Your task to perform on an android device: open a bookmark in the chrome app Image 0: 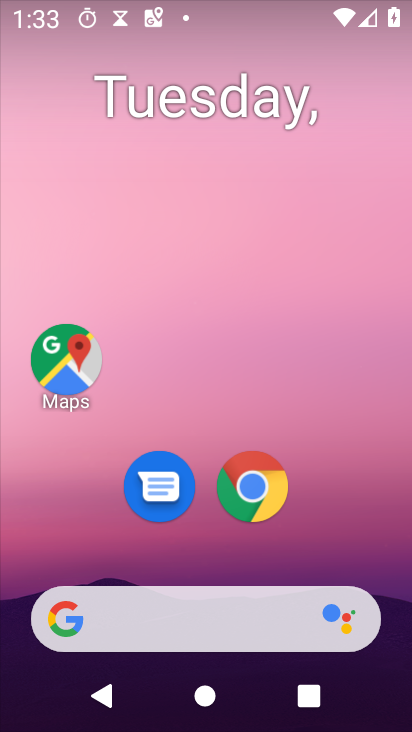
Step 0: click (239, 483)
Your task to perform on an android device: open a bookmark in the chrome app Image 1: 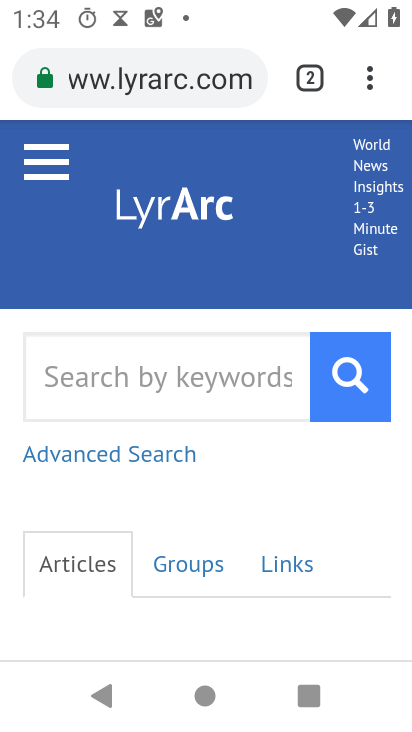
Step 1: click (376, 76)
Your task to perform on an android device: open a bookmark in the chrome app Image 2: 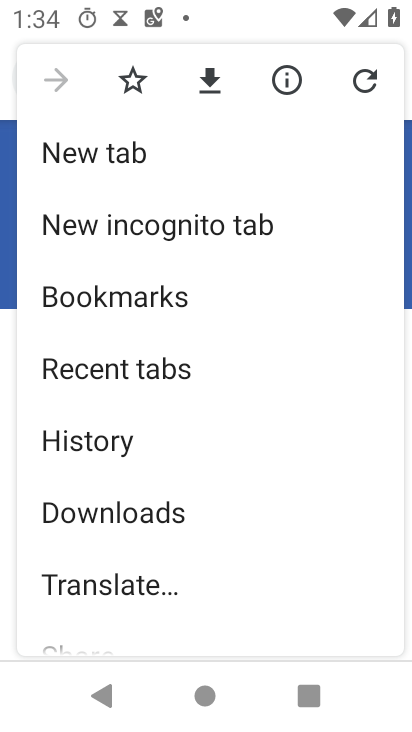
Step 2: click (227, 306)
Your task to perform on an android device: open a bookmark in the chrome app Image 3: 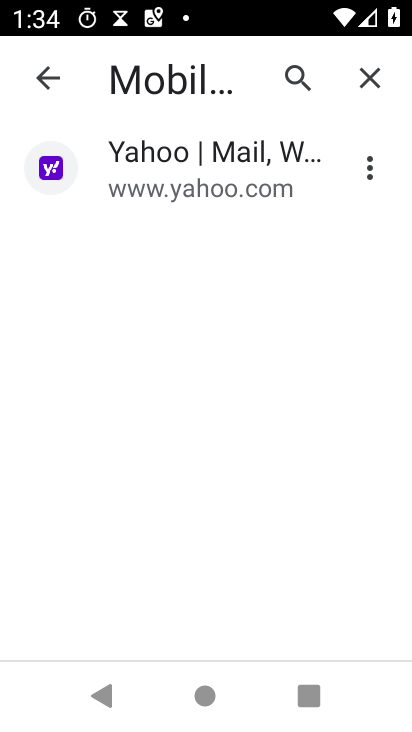
Step 3: click (225, 142)
Your task to perform on an android device: open a bookmark in the chrome app Image 4: 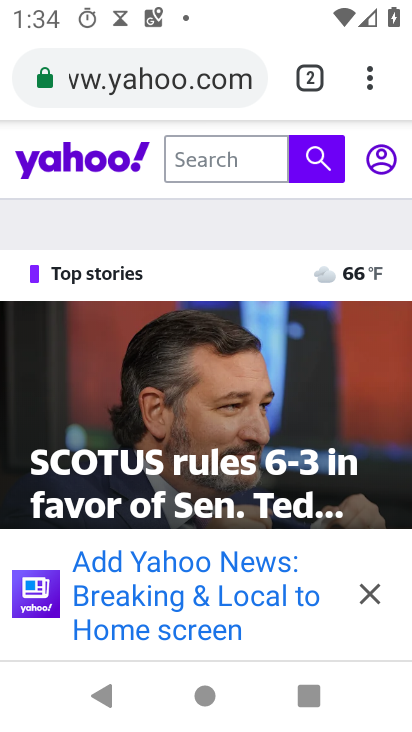
Step 4: task complete